Your task to perform on an android device: find which apps use the phone's location Image 0: 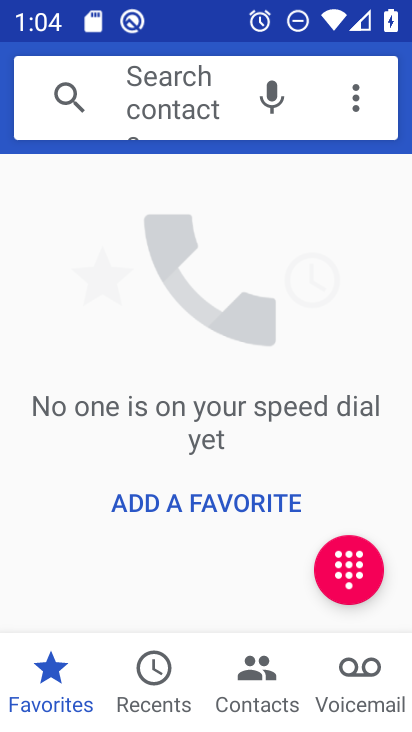
Step 0: press home button
Your task to perform on an android device: find which apps use the phone's location Image 1: 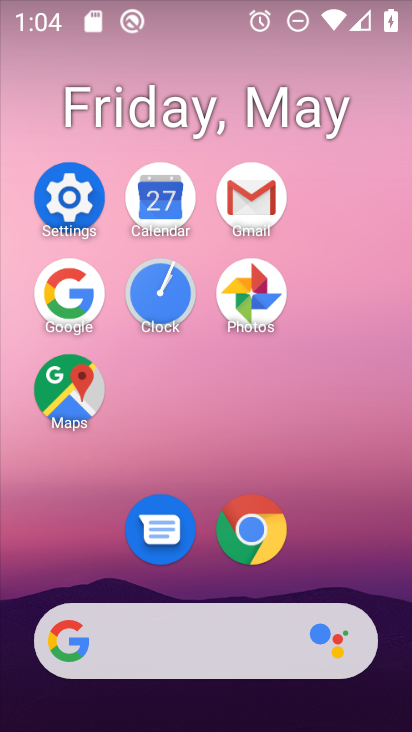
Step 1: click (55, 199)
Your task to perform on an android device: find which apps use the phone's location Image 2: 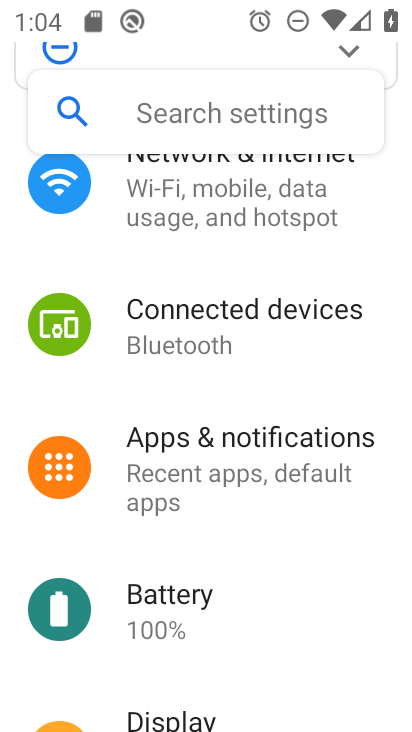
Step 2: drag from (332, 410) to (316, 223)
Your task to perform on an android device: find which apps use the phone's location Image 3: 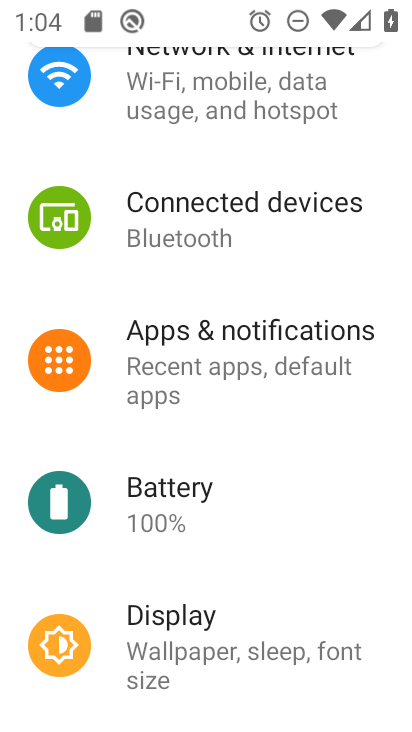
Step 3: drag from (296, 313) to (325, 667)
Your task to perform on an android device: find which apps use the phone's location Image 4: 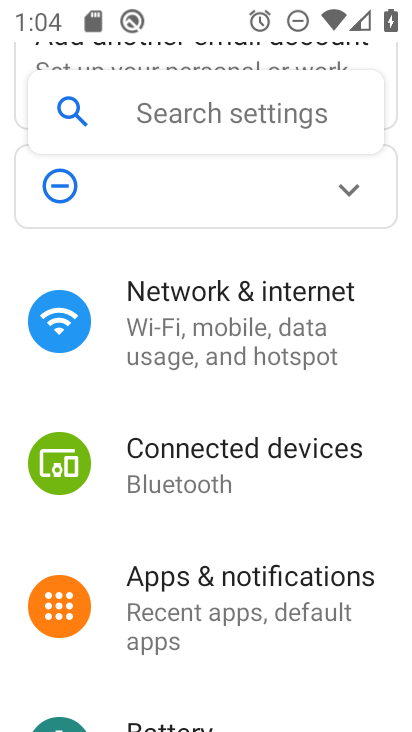
Step 4: drag from (302, 631) to (289, 249)
Your task to perform on an android device: find which apps use the phone's location Image 5: 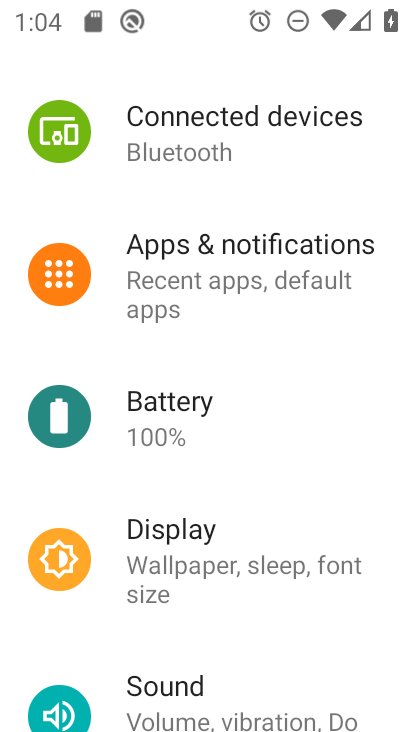
Step 5: drag from (250, 395) to (284, 156)
Your task to perform on an android device: find which apps use the phone's location Image 6: 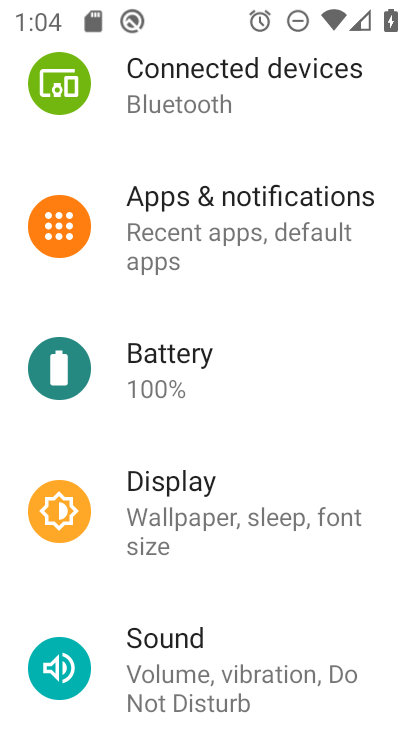
Step 6: drag from (253, 350) to (275, 157)
Your task to perform on an android device: find which apps use the phone's location Image 7: 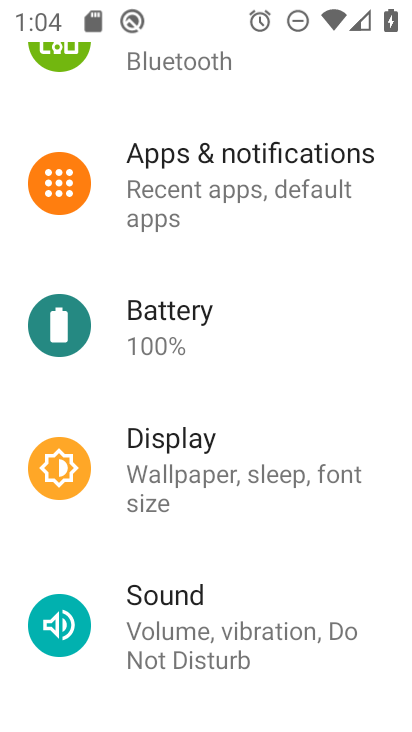
Step 7: drag from (299, 627) to (273, 196)
Your task to perform on an android device: find which apps use the phone's location Image 8: 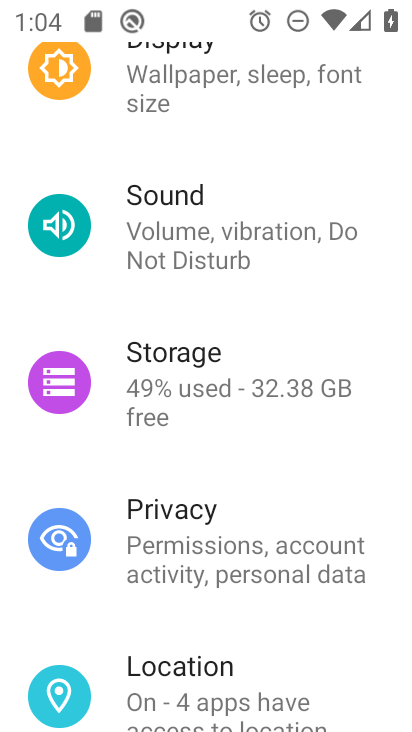
Step 8: click (216, 655)
Your task to perform on an android device: find which apps use the phone's location Image 9: 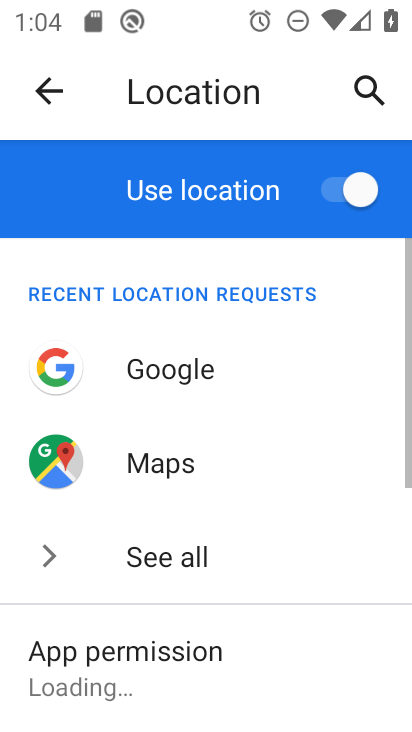
Step 9: task complete